Your task to perform on an android device: turn off wifi Image 0: 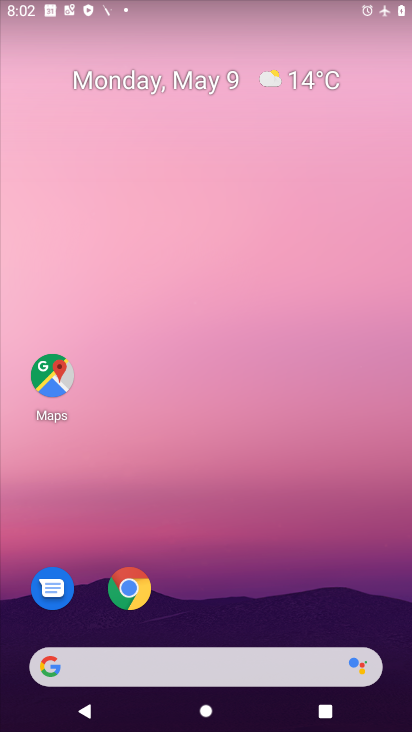
Step 0: drag from (246, 8) to (308, 474)
Your task to perform on an android device: turn off wifi Image 1: 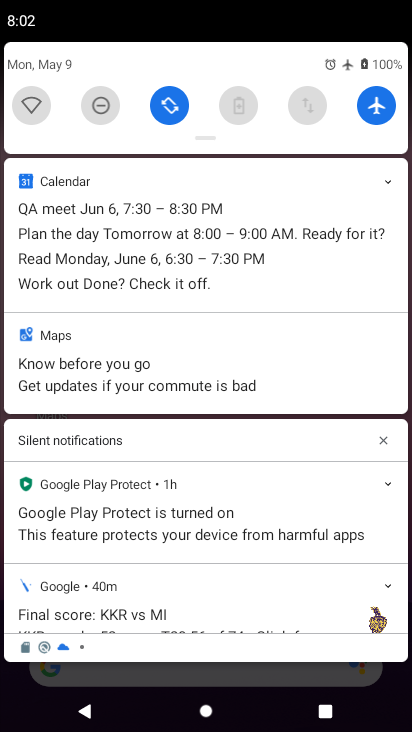
Step 1: task complete